Your task to perform on an android device: toggle notification dots Image 0: 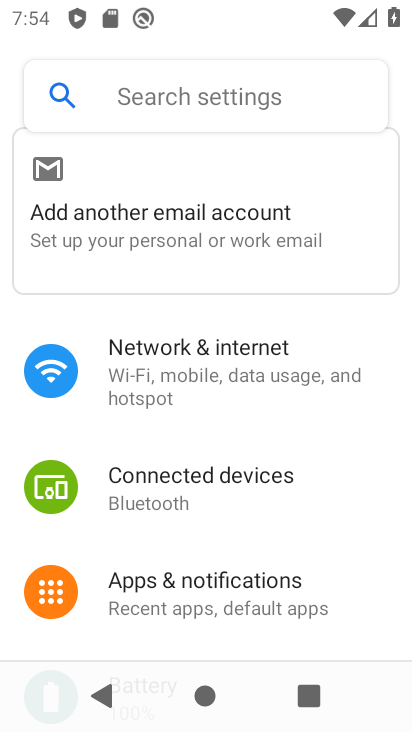
Step 0: click (120, 100)
Your task to perform on an android device: toggle notification dots Image 1: 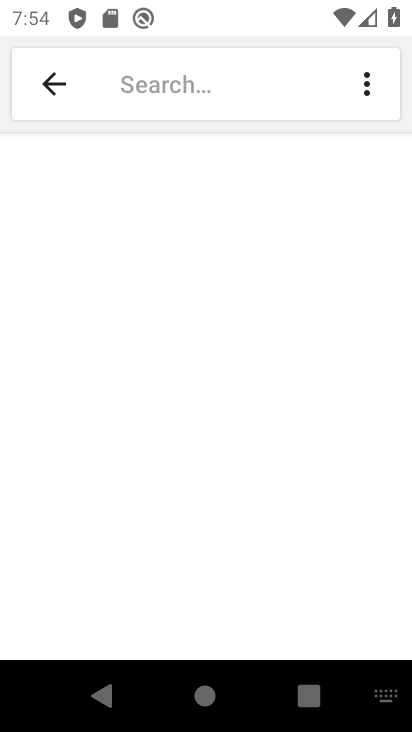
Step 1: type "notification dots"
Your task to perform on an android device: toggle notification dots Image 2: 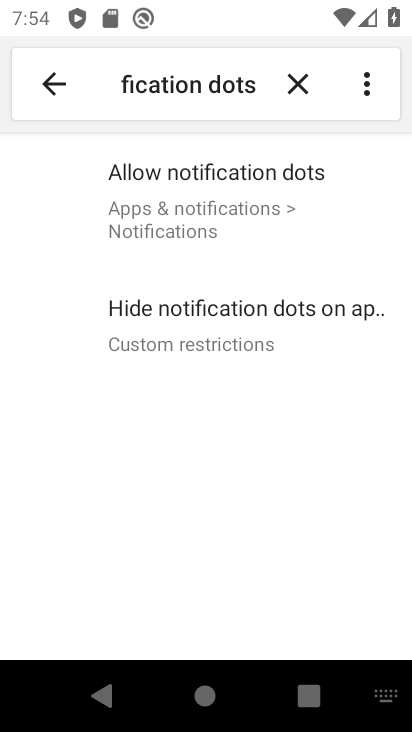
Step 2: click (212, 195)
Your task to perform on an android device: toggle notification dots Image 3: 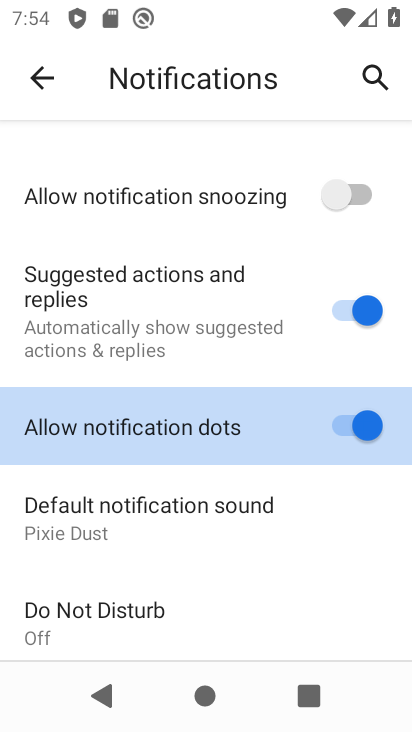
Step 3: click (346, 429)
Your task to perform on an android device: toggle notification dots Image 4: 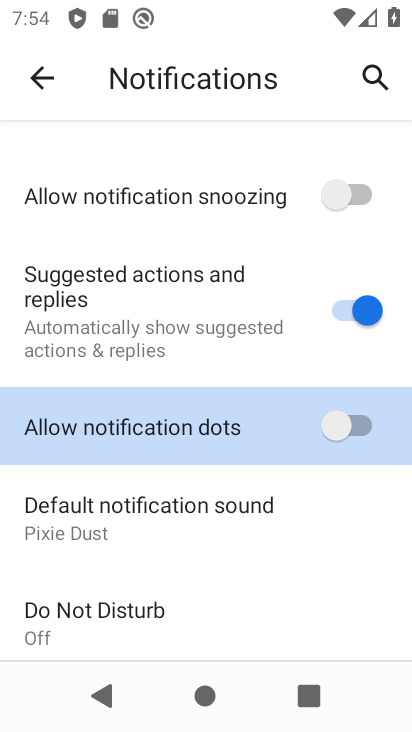
Step 4: task complete